Your task to perform on an android device: turn on bluetooth scan Image 0: 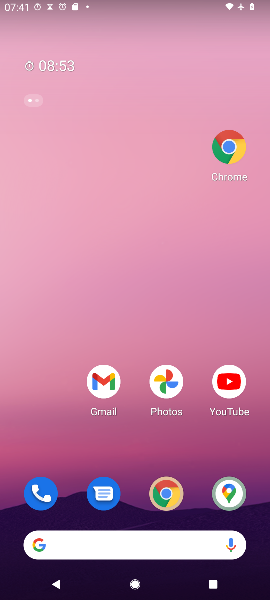
Step 0: press home button
Your task to perform on an android device: turn on bluetooth scan Image 1: 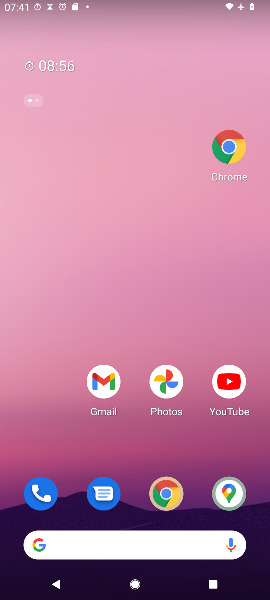
Step 1: drag from (48, 430) to (82, 53)
Your task to perform on an android device: turn on bluetooth scan Image 2: 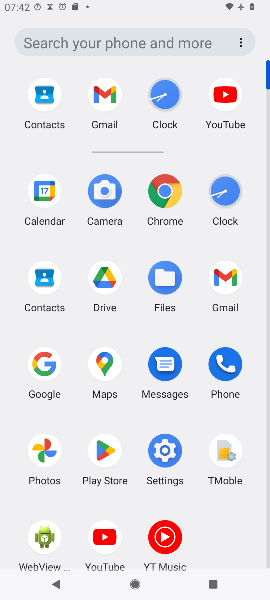
Step 2: click (158, 455)
Your task to perform on an android device: turn on bluetooth scan Image 3: 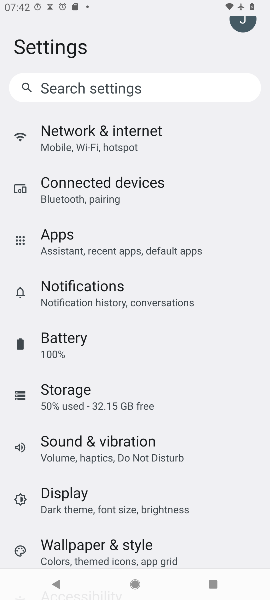
Step 3: drag from (116, 522) to (136, 274)
Your task to perform on an android device: turn on bluetooth scan Image 4: 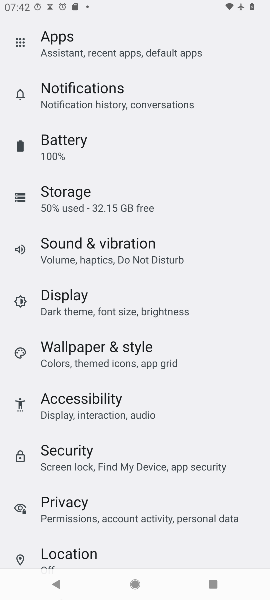
Step 4: click (88, 554)
Your task to perform on an android device: turn on bluetooth scan Image 5: 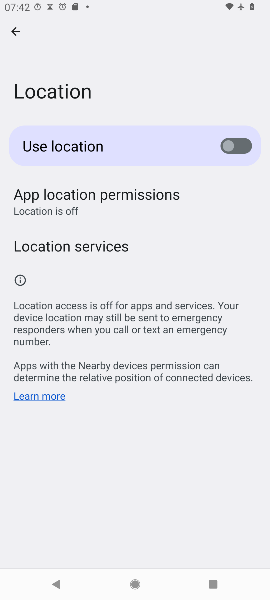
Step 5: click (59, 246)
Your task to perform on an android device: turn on bluetooth scan Image 6: 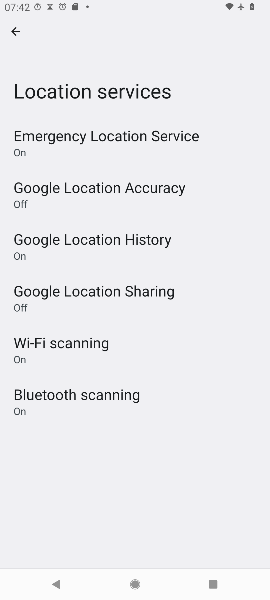
Step 6: click (93, 398)
Your task to perform on an android device: turn on bluetooth scan Image 7: 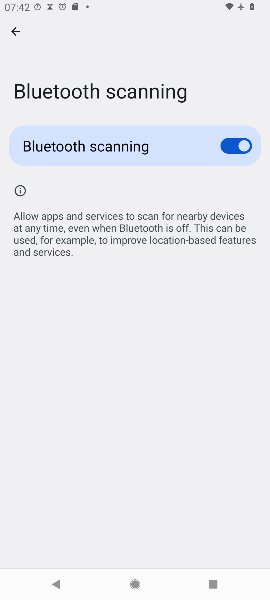
Step 7: task complete